Your task to perform on an android device: turn off smart reply in the gmail app Image 0: 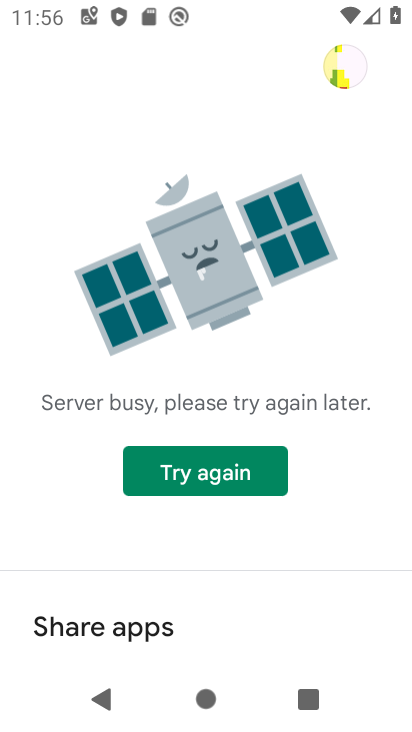
Step 0: press home button
Your task to perform on an android device: turn off smart reply in the gmail app Image 1: 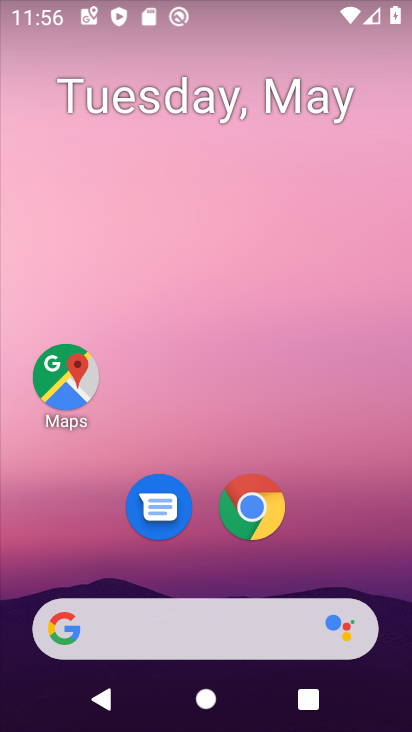
Step 1: drag from (379, 583) to (312, 188)
Your task to perform on an android device: turn off smart reply in the gmail app Image 2: 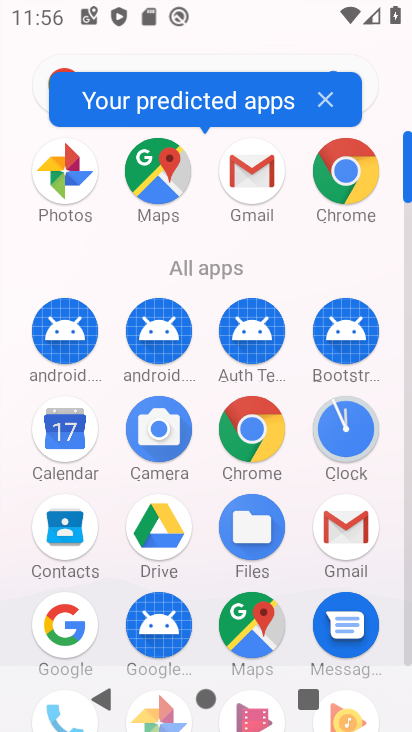
Step 2: click (265, 189)
Your task to perform on an android device: turn off smart reply in the gmail app Image 3: 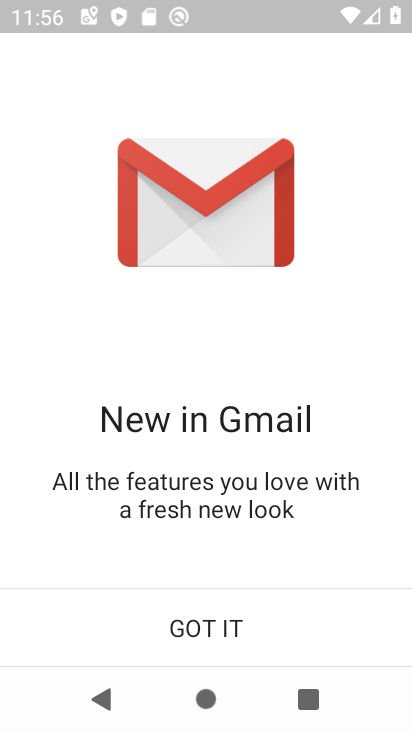
Step 3: click (175, 629)
Your task to perform on an android device: turn off smart reply in the gmail app Image 4: 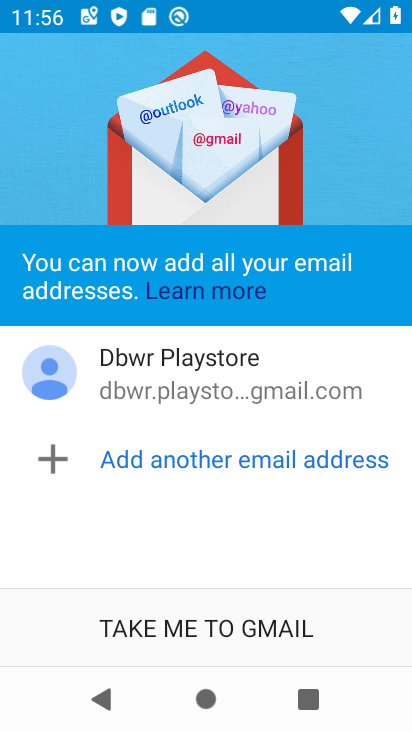
Step 4: click (175, 629)
Your task to perform on an android device: turn off smart reply in the gmail app Image 5: 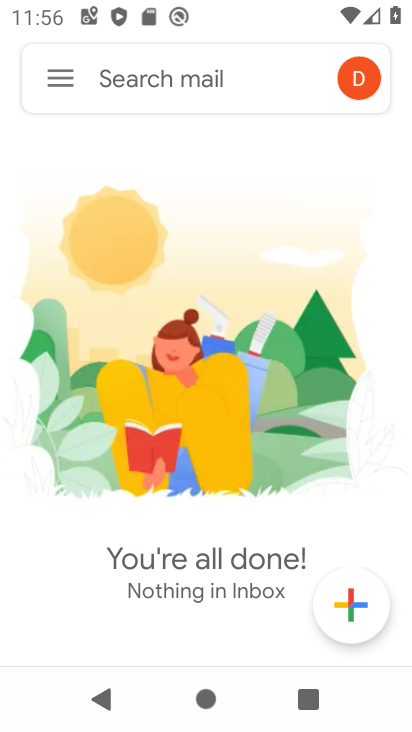
Step 5: click (59, 74)
Your task to perform on an android device: turn off smart reply in the gmail app Image 6: 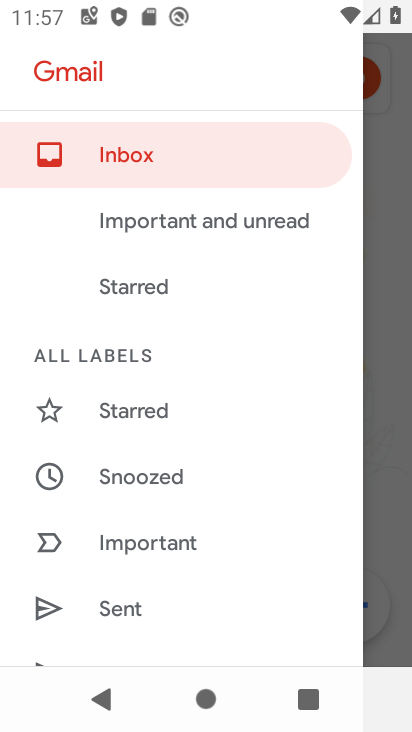
Step 6: drag from (170, 619) to (217, 26)
Your task to perform on an android device: turn off smart reply in the gmail app Image 7: 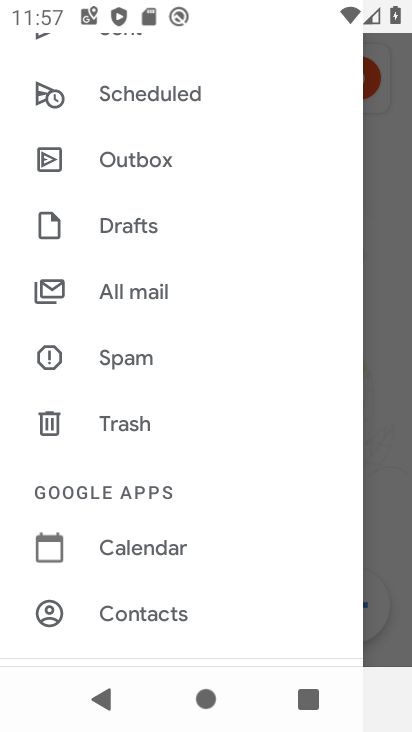
Step 7: drag from (268, 624) to (176, 183)
Your task to perform on an android device: turn off smart reply in the gmail app Image 8: 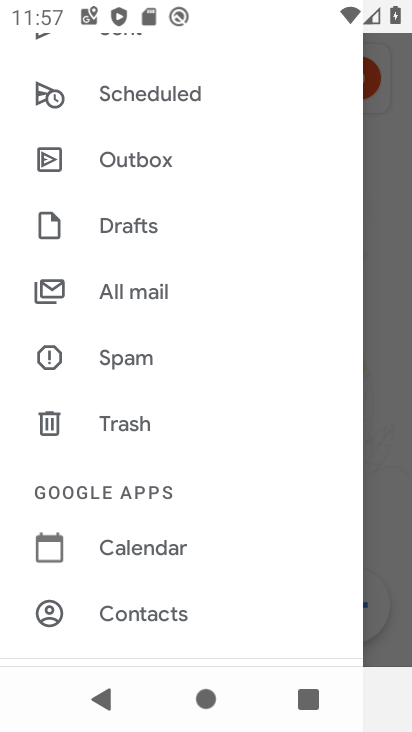
Step 8: drag from (142, 602) to (121, 209)
Your task to perform on an android device: turn off smart reply in the gmail app Image 9: 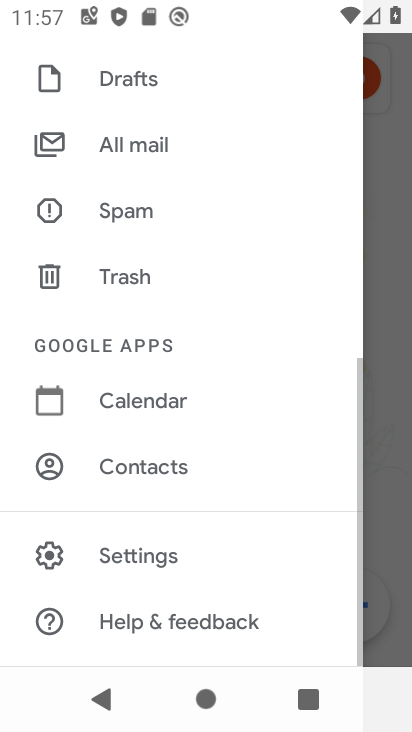
Step 9: click (196, 574)
Your task to perform on an android device: turn off smart reply in the gmail app Image 10: 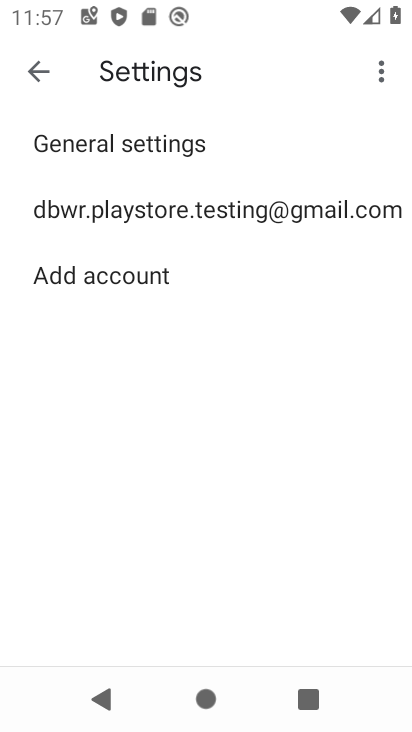
Step 10: click (241, 218)
Your task to perform on an android device: turn off smart reply in the gmail app Image 11: 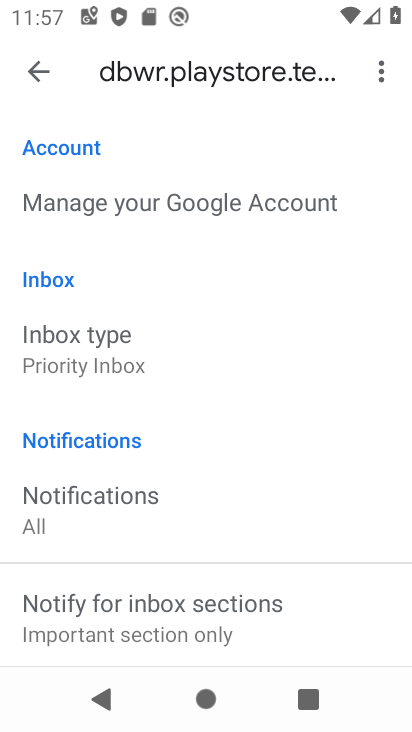
Step 11: drag from (275, 602) to (260, 28)
Your task to perform on an android device: turn off smart reply in the gmail app Image 12: 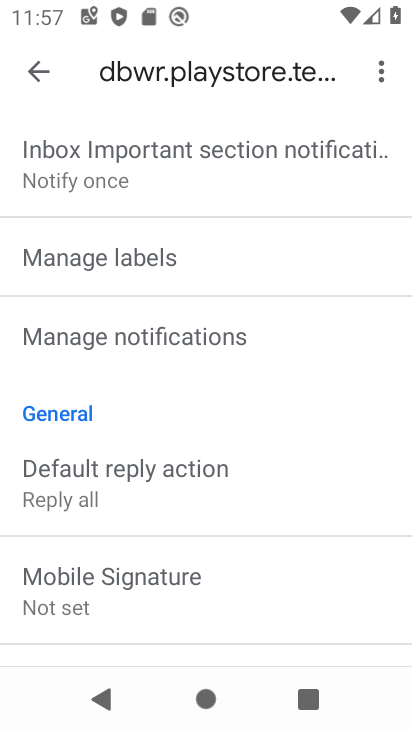
Step 12: drag from (360, 597) to (299, 170)
Your task to perform on an android device: turn off smart reply in the gmail app Image 13: 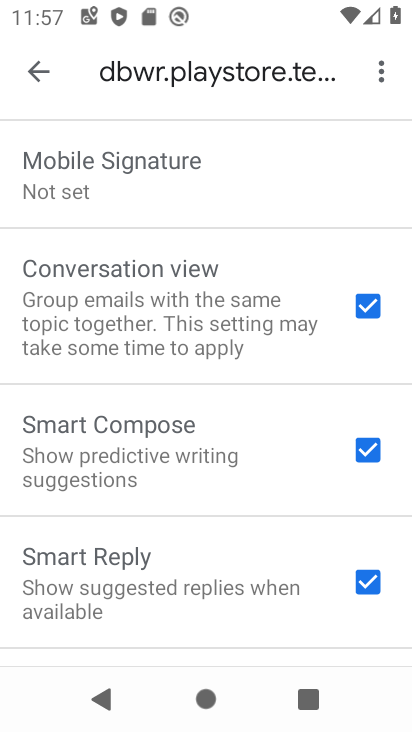
Step 13: drag from (374, 456) to (323, 183)
Your task to perform on an android device: turn off smart reply in the gmail app Image 14: 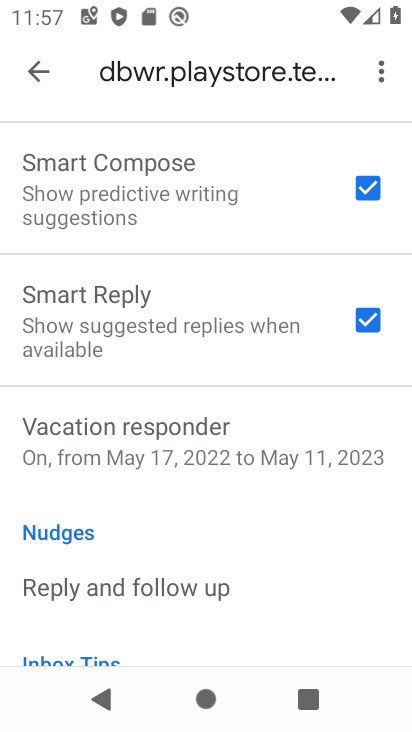
Step 14: click (368, 323)
Your task to perform on an android device: turn off smart reply in the gmail app Image 15: 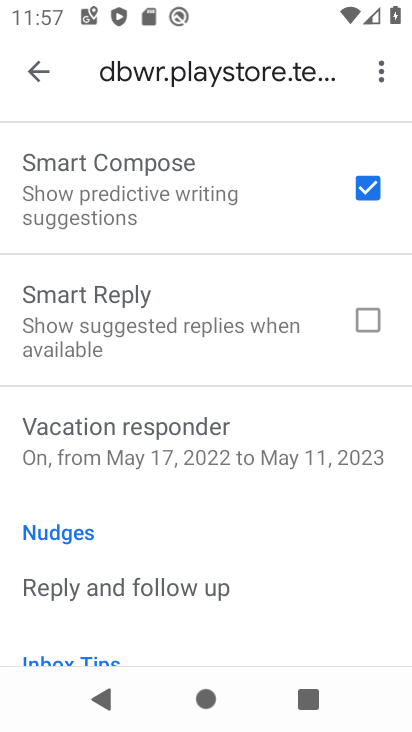
Step 15: task complete